Your task to perform on an android device: turn off improve location accuracy Image 0: 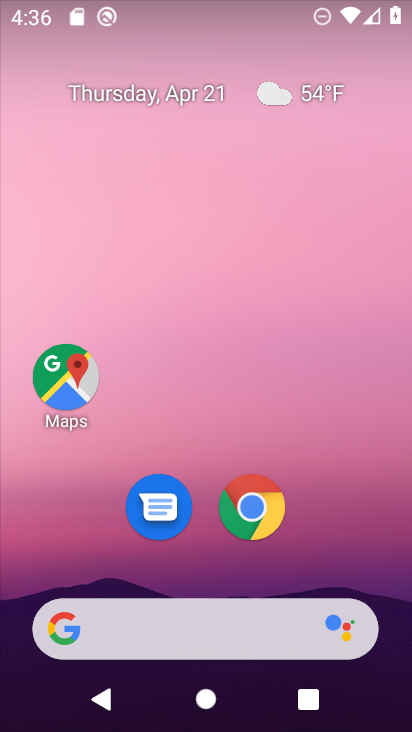
Step 0: drag from (328, 485) to (332, 77)
Your task to perform on an android device: turn off improve location accuracy Image 1: 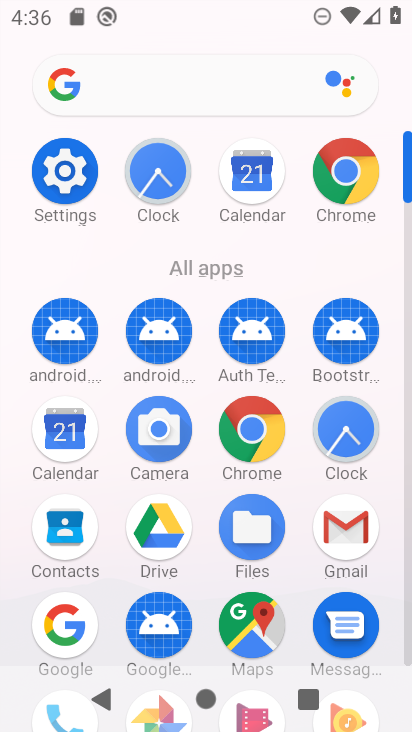
Step 1: click (75, 188)
Your task to perform on an android device: turn off improve location accuracy Image 2: 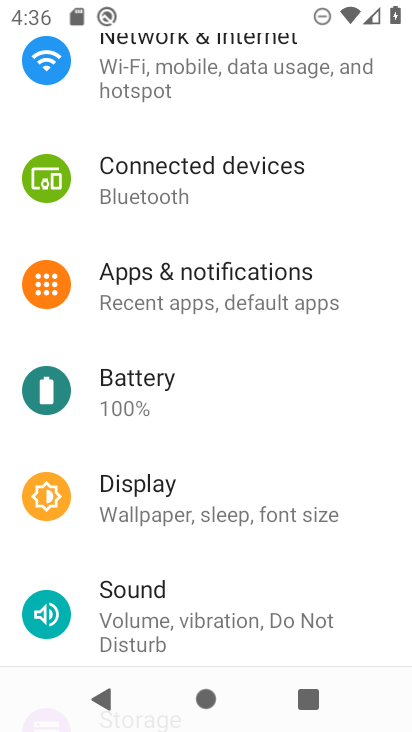
Step 2: drag from (255, 577) to (252, 170)
Your task to perform on an android device: turn off improve location accuracy Image 3: 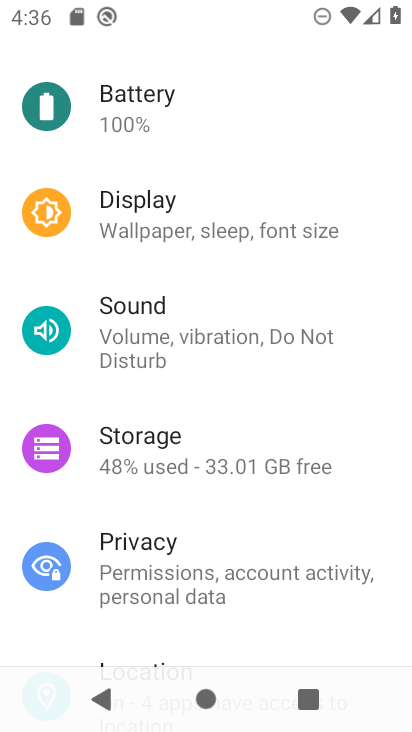
Step 3: drag from (236, 532) to (306, 189)
Your task to perform on an android device: turn off improve location accuracy Image 4: 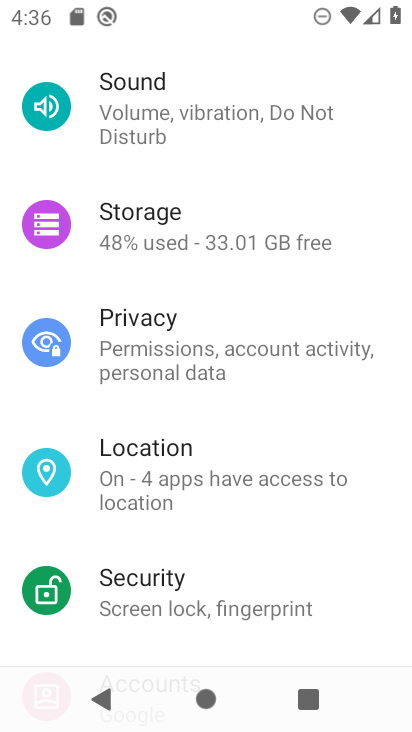
Step 4: click (195, 463)
Your task to perform on an android device: turn off improve location accuracy Image 5: 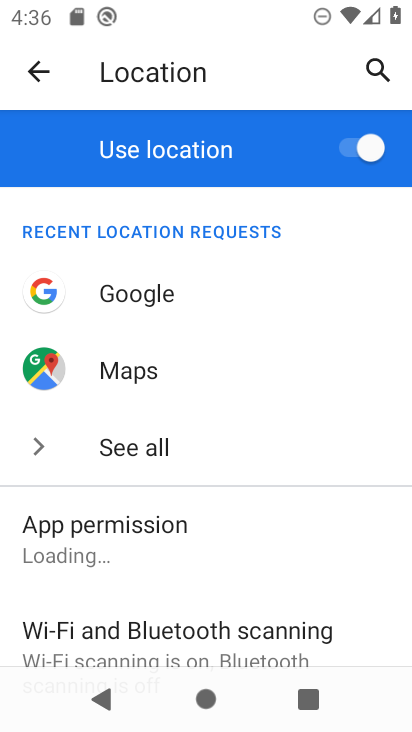
Step 5: drag from (225, 529) to (272, 210)
Your task to perform on an android device: turn off improve location accuracy Image 6: 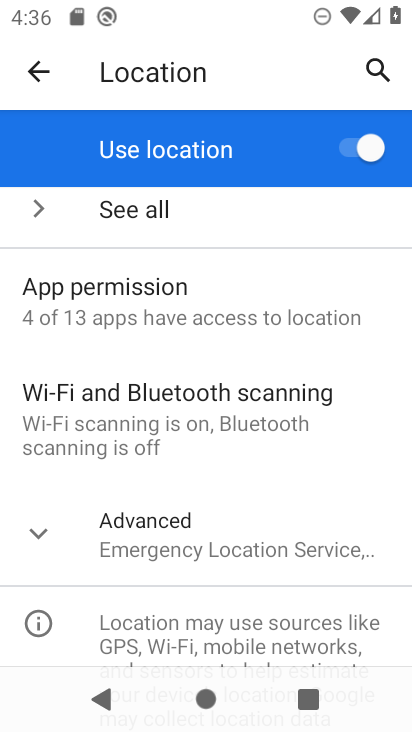
Step 6: drag from (236, 517) to (255, 230)
Your task to perform on an android device: turn off improve location accuracy Image 7: 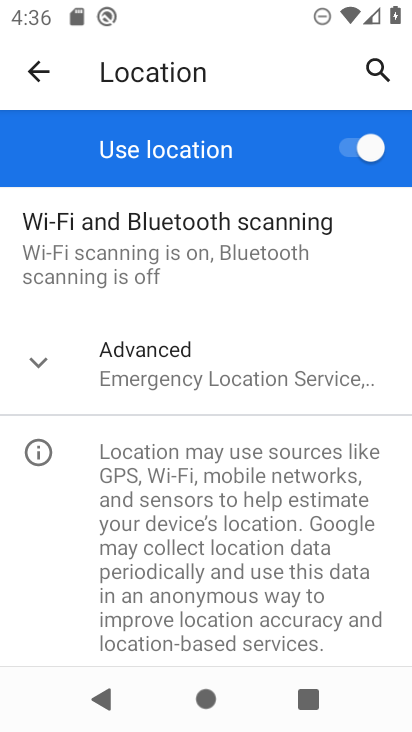
Step 7: click (187, 383)
Your task to perform on an android device: turn off improve location accuracy Image 8: 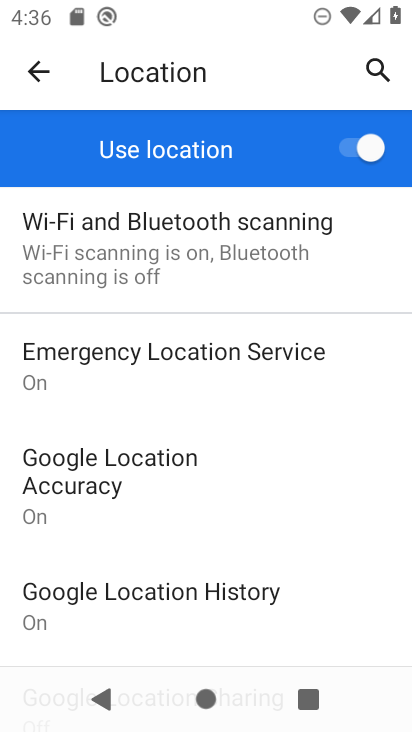
Step 8: click (127, 486)
Your task to perform on an android device: turn off improve location accuracy Image 9: 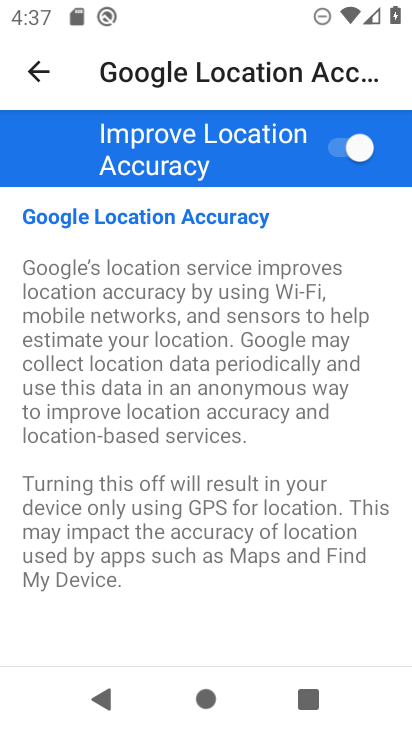
Step 9: click (339, 153)
Your task to perform on an android device: turn off improve location accuracy Image 10: 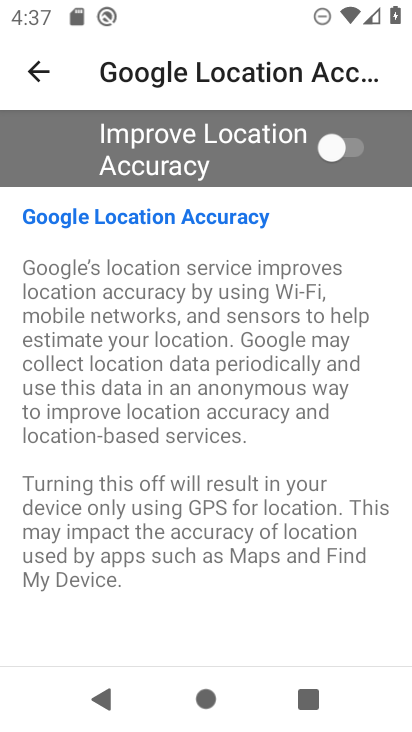
Step 10: task complete